Your task to perform on an android device: change alarm snooze length Image 0: 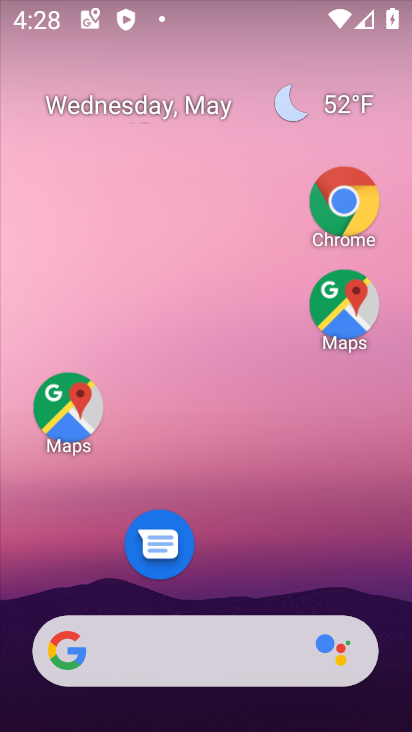
Step 0: click (237, 20)
Your task to perform on an android device: change alarm snooze length Image 1: 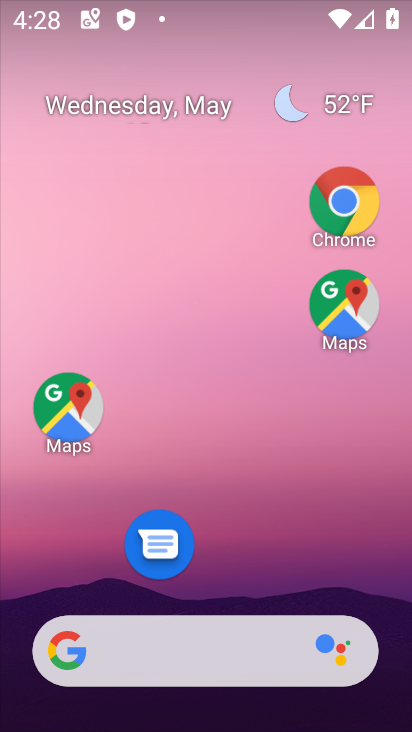
Step 1: click (233, 2)
Your task to perform on an android device: change alarm snooze length Image 2: 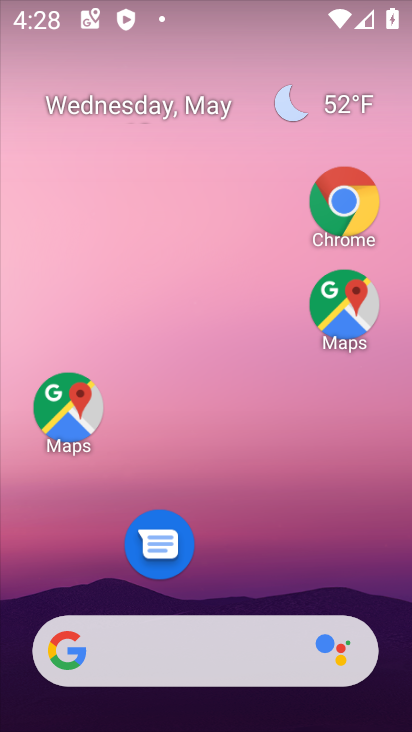
Step 2: drag from (230, 477) to (230, 9)
Your task to perform on an android device: change alarm snooze length Image 3: 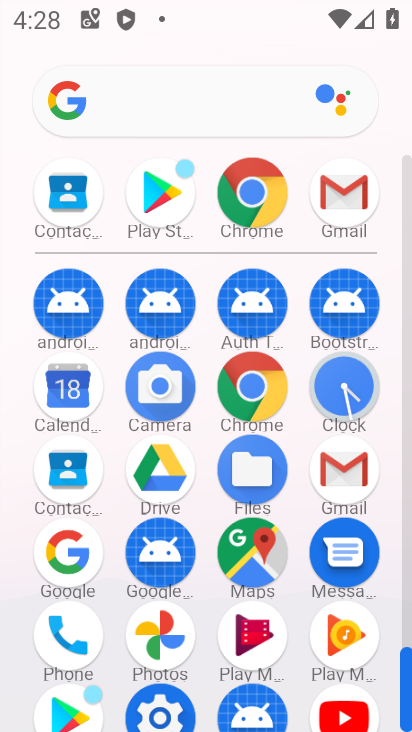
Step 3: click (346, 382)
Your task to perform on an android device: change alarm snooze length Image 4: 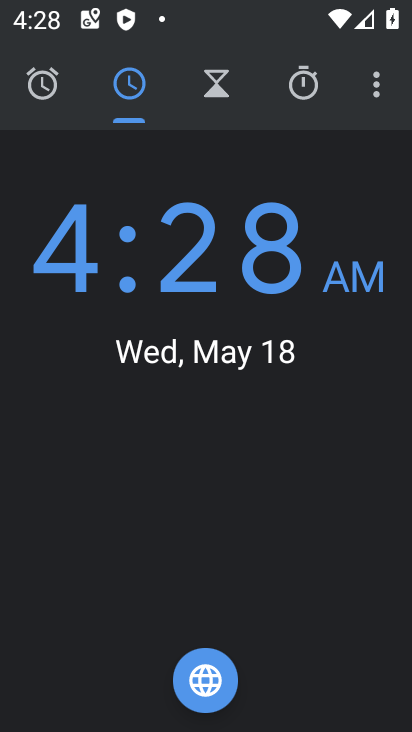
Step 4: click (374, 89)
Your task to perform on an android device: change alarm snooze length Image 5: 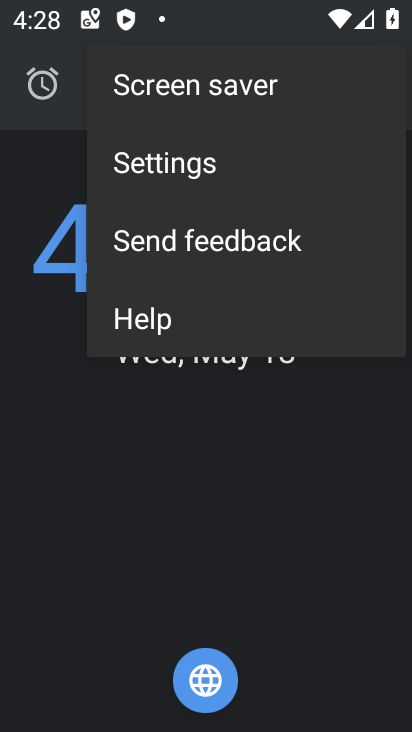
Step 5: click (227, 173)
Your task to perform on an android device: change alarm snooze length Image 6: 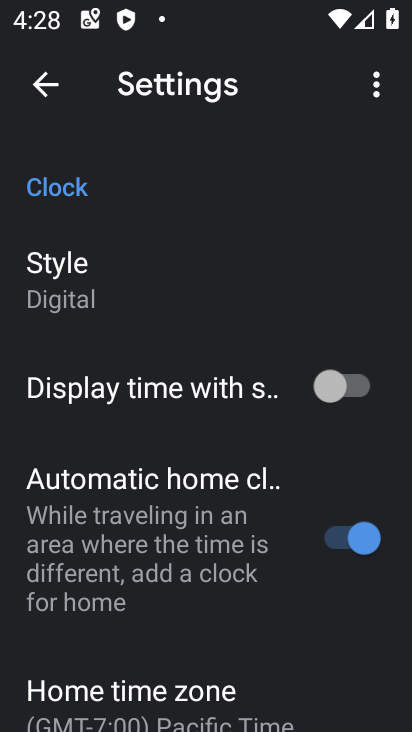
Step 6: drag from (228, 554) to (276, 177)
Your task to perform on an android device: change alarm snooze length Image 7: 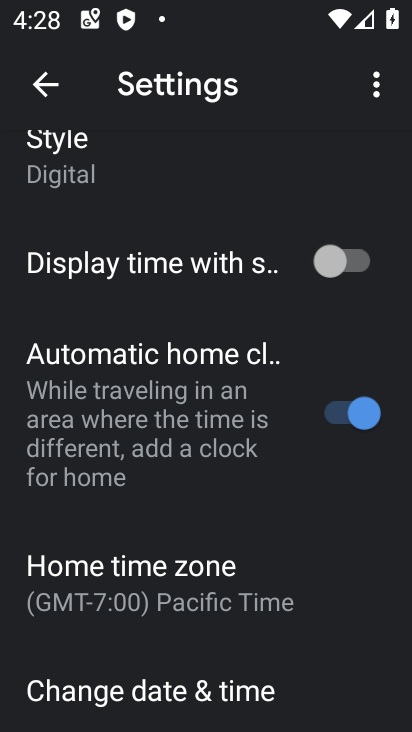
Step 7: click (126, 264)
Your task to perform on an android device: change alarm snooze length Image 8: 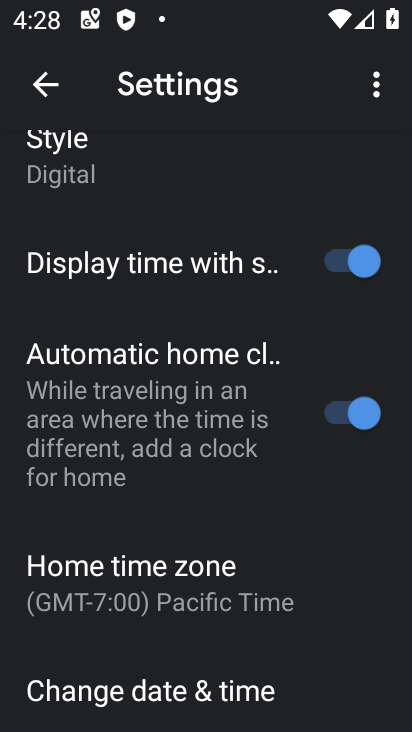
Step 8: drag from (242, 619) to (252, 347)
Your task to perform on an android device: change alarm snooze length Image 9: 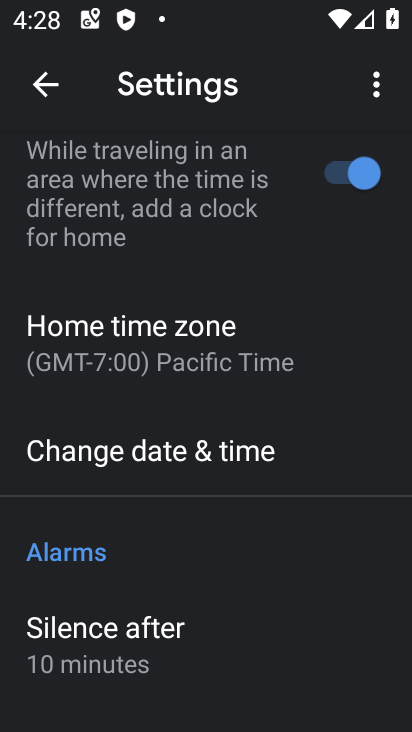
Step 9: drag from (190, 547) to (184, 292)
Your task to perform on an android device: change alarm snooze length Image 10: 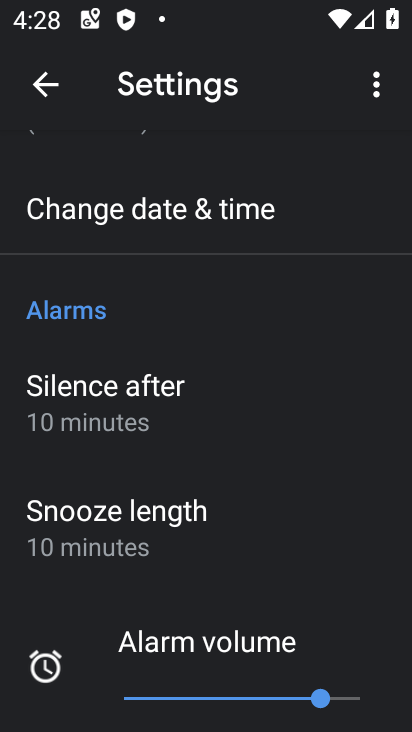
Step 10: click (68, 519)
Your task to perform on an android device: change alarm snooze length Image 11: 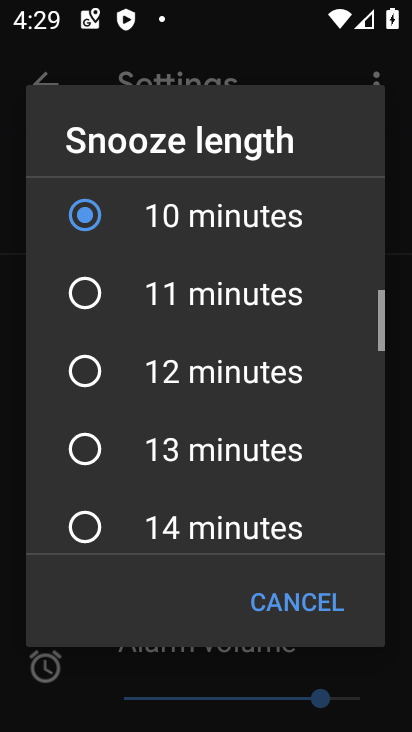
Step 11: click (90, 289)
Your task to perform on an android device: change alarm snooze length Image 12: 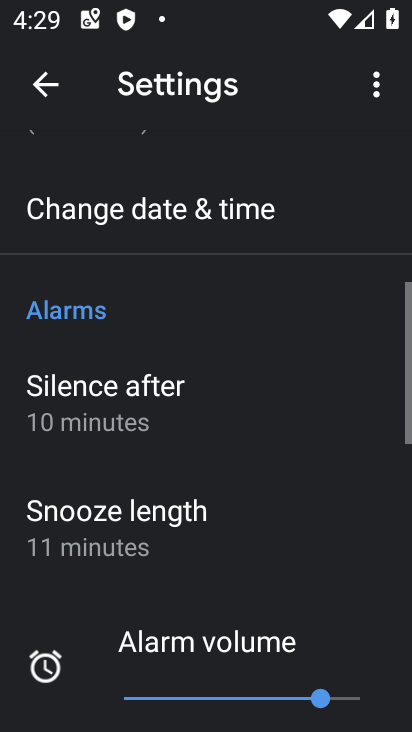
Step 12: task complete